Your task to perform on an android device: Turn on notifications for the Google Maps app Image 0: 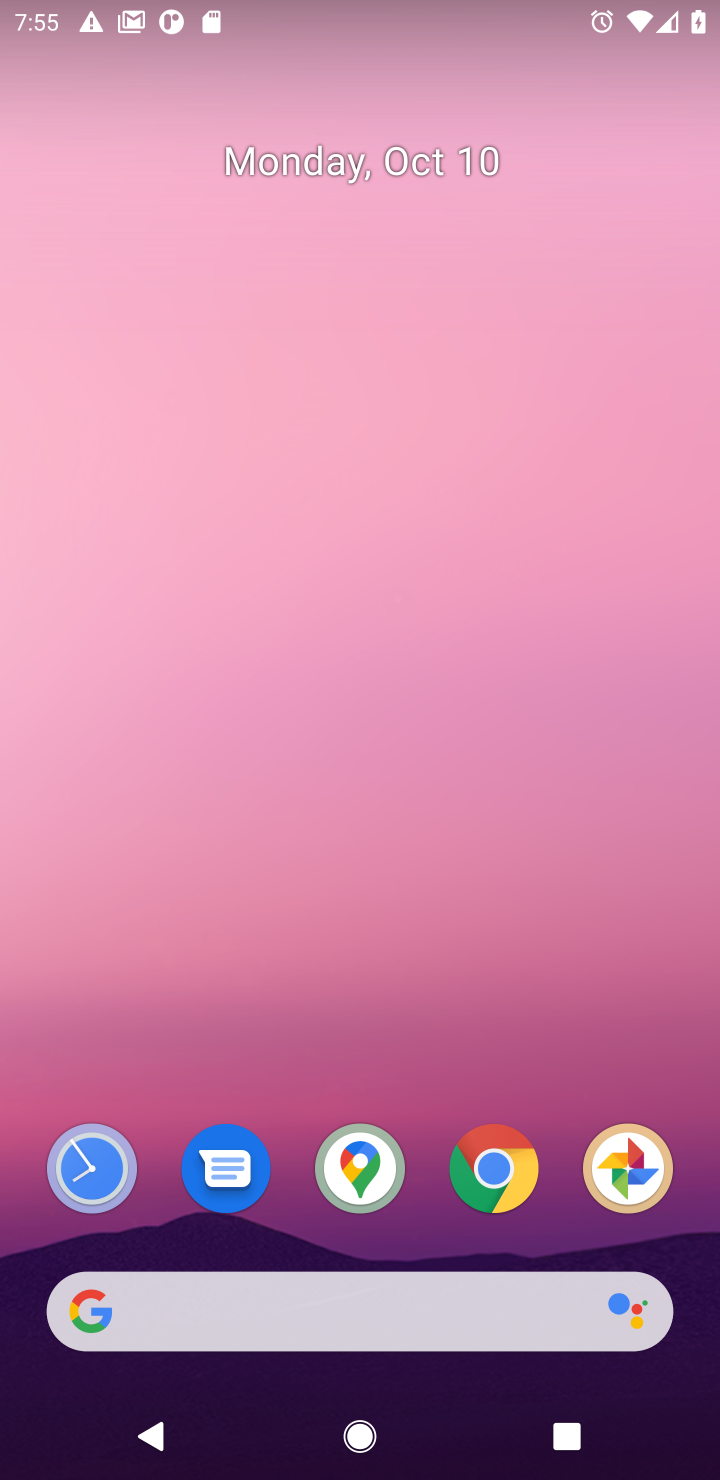
Step 0: click (347, 1166)
Your task to perform on an android device: Turn on notifications for the Google Maps app Image 1: 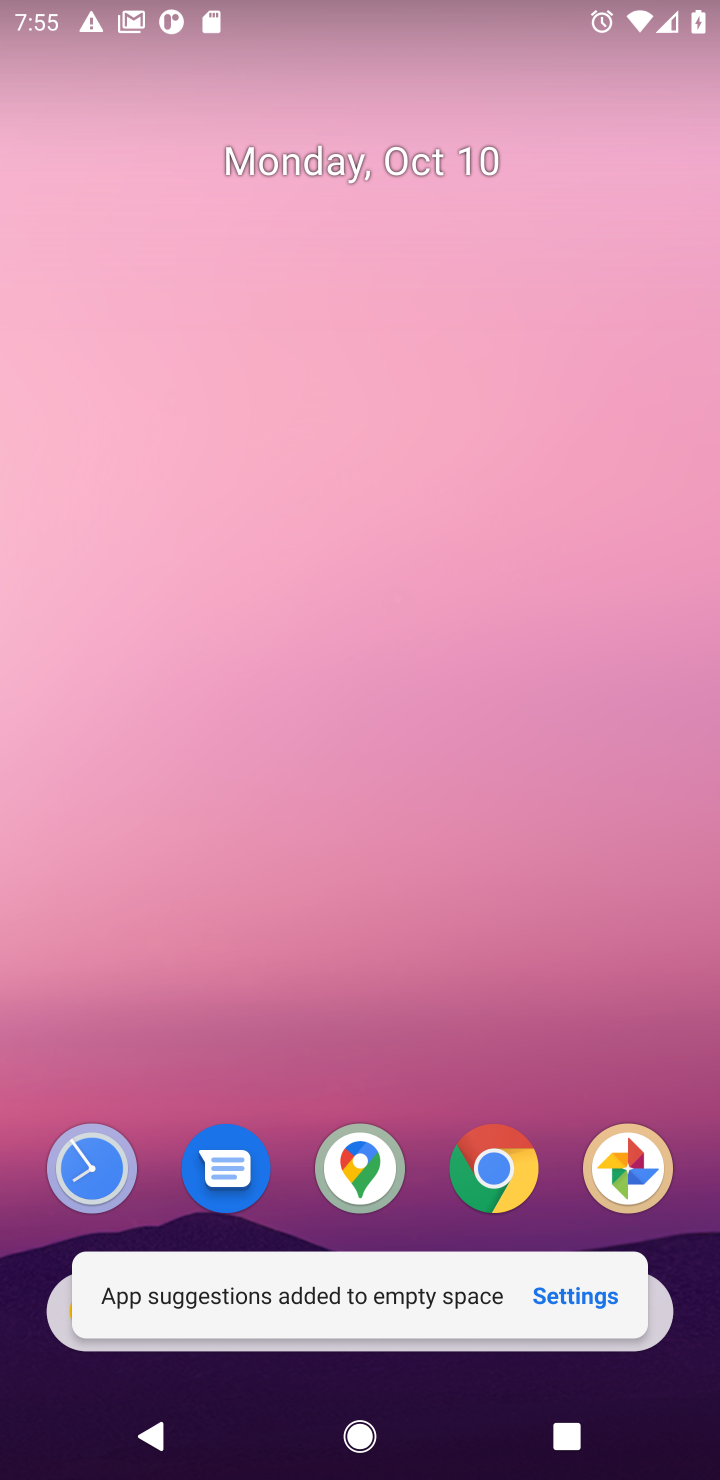
Step 1: click (591, 1303)
Your task to perform on an android device: Turn on notifications for the Google Maps app Image 2: 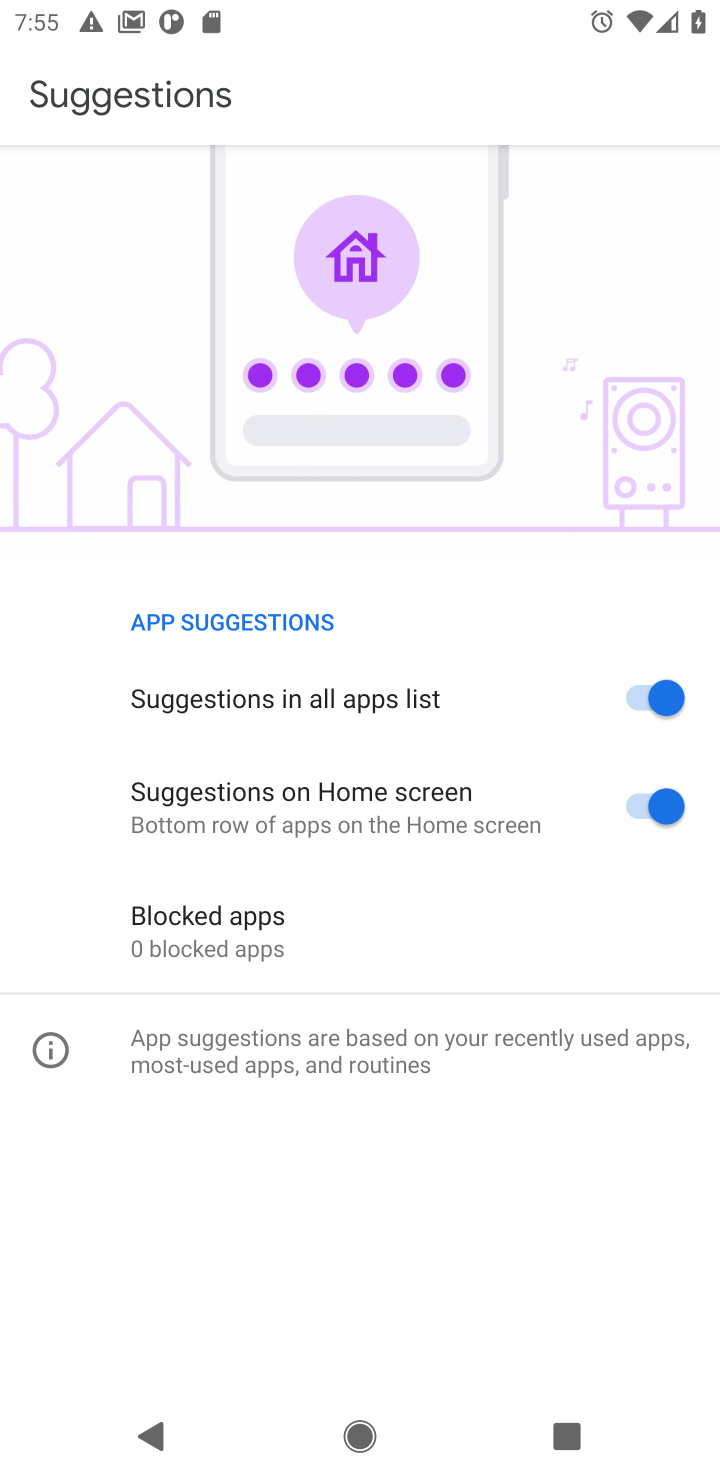
Step 2: press back button
Your task to perform on an android device: Turn on notifications for the Google Maps app Image 3: 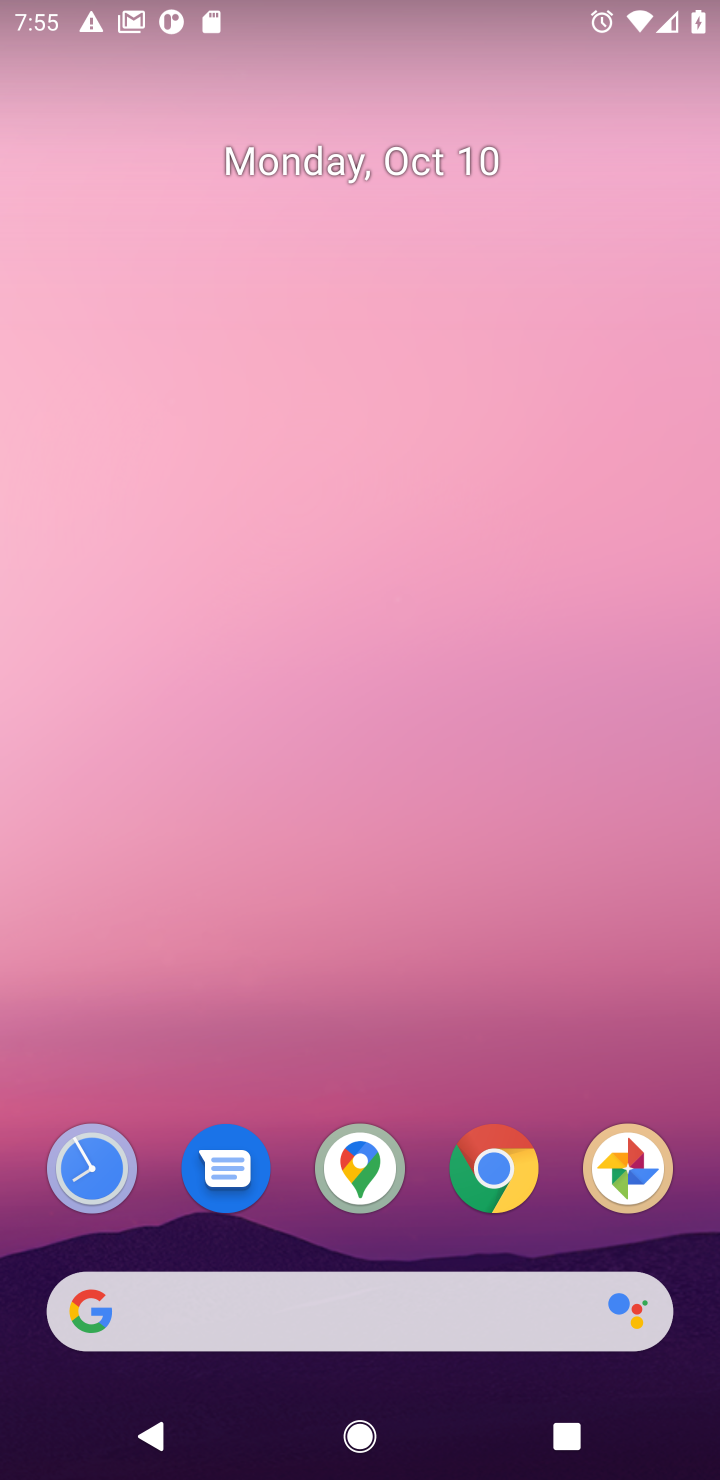
Step 3: click (351, 1178)
Your task to perform on an android device: Turn on notifications for the Google Maps app Image 4: 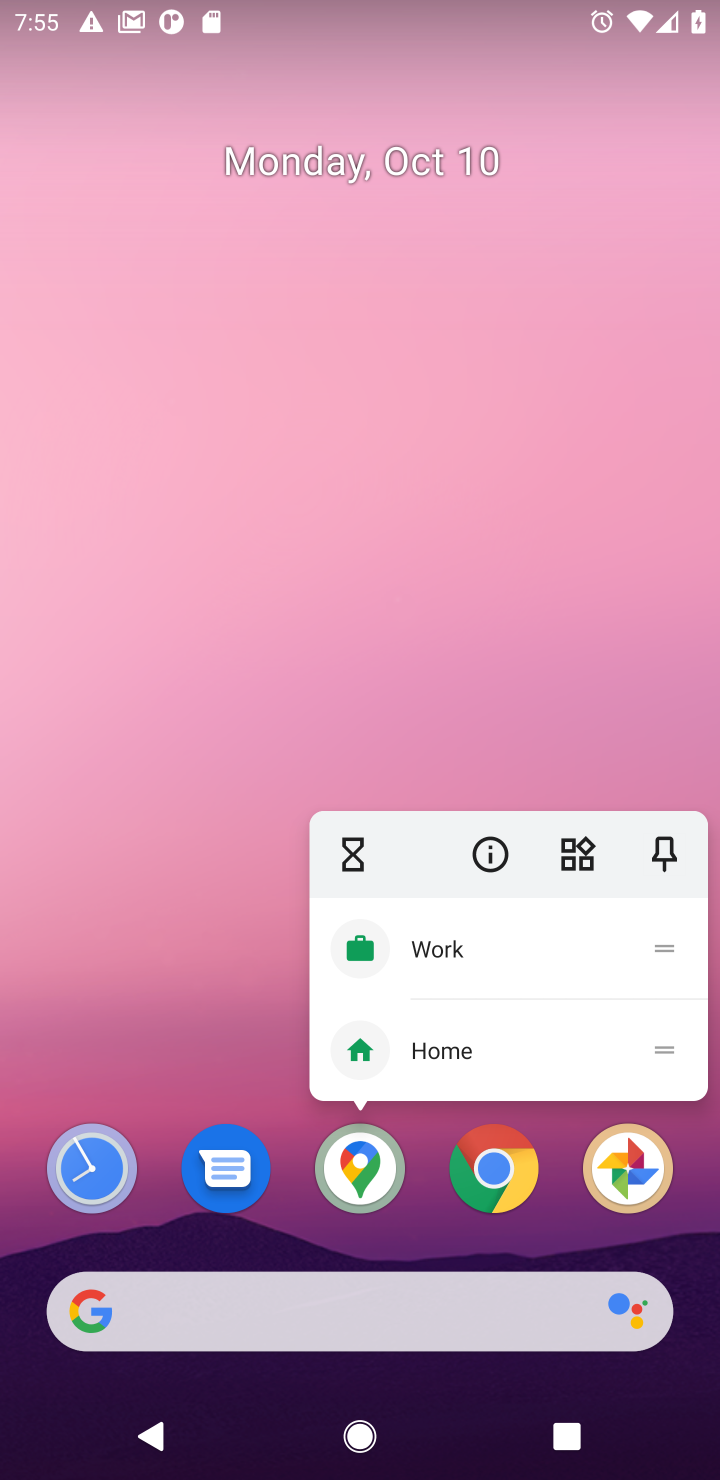
Step 4: click (490, 856)
Your task to perform on an android device: Turn on notifications for the Google Maps app Image 5: 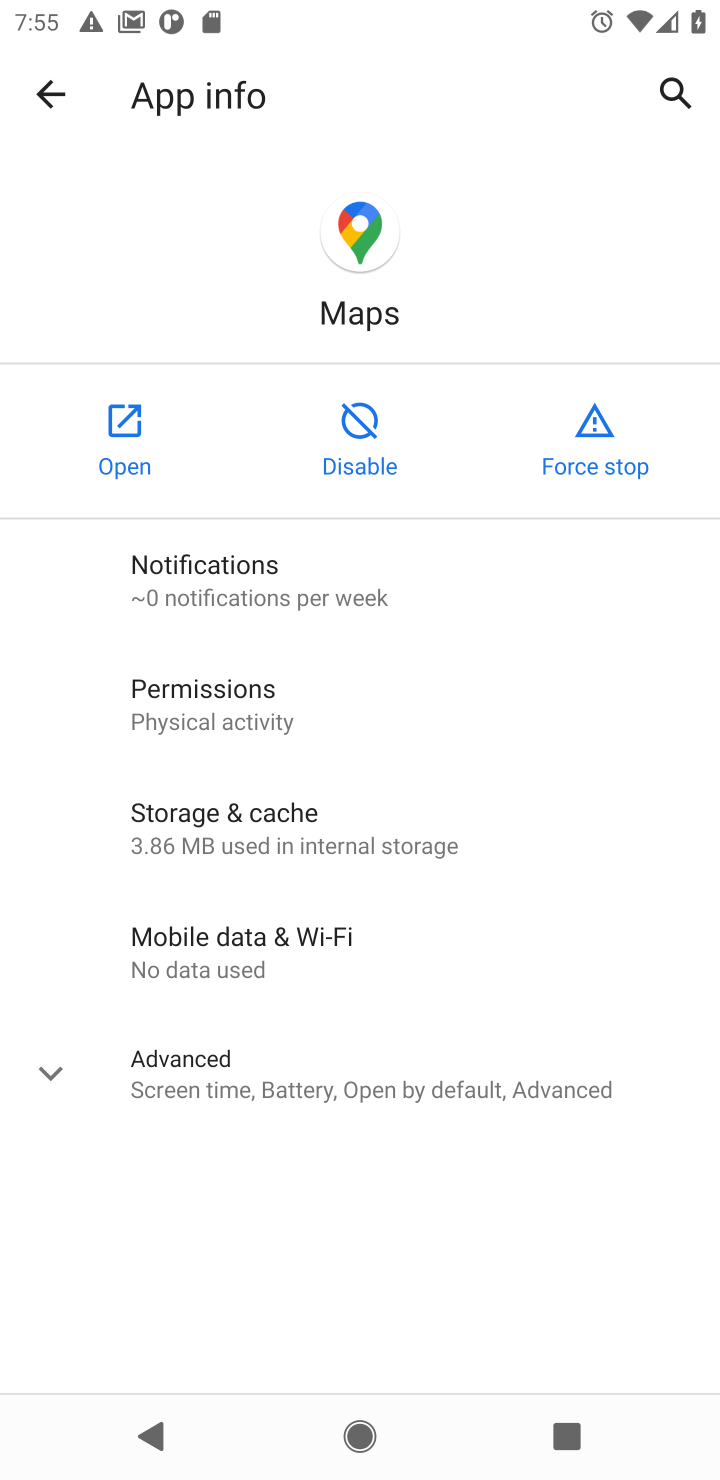
Step 5: click (252, 591)
Your task to perform on an android device: Turn on notifications for the Google Maps app Image 6: 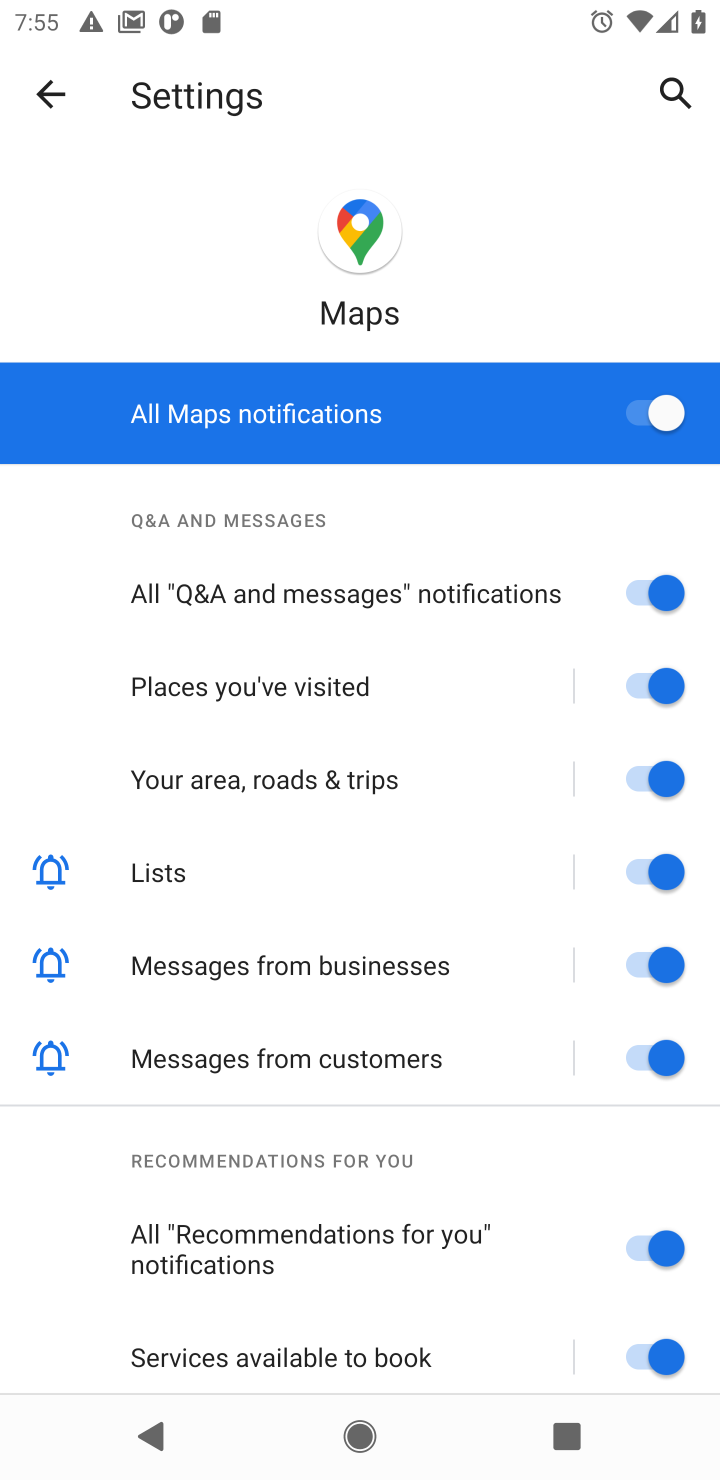
Step 6: task complete